Your task to perform on an android device: turn off smart reply in the gmail app Image 0: 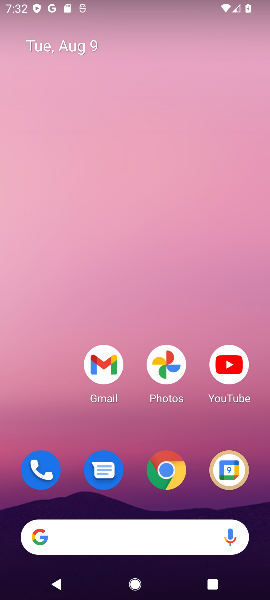
Step 0: click (101, 359)
Your task to perform on an android device: turn off smart reply in the gmail app Image 1: 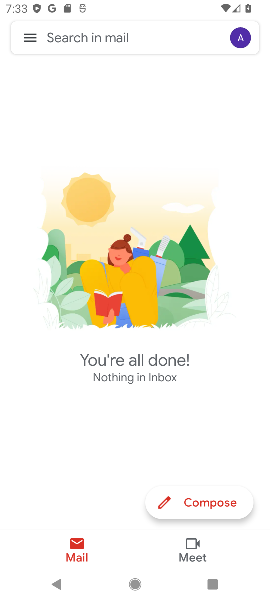
Step 1: click (26, 39)
Your task to perform on an android device: turn off smart reply in the gmail app Image 2: 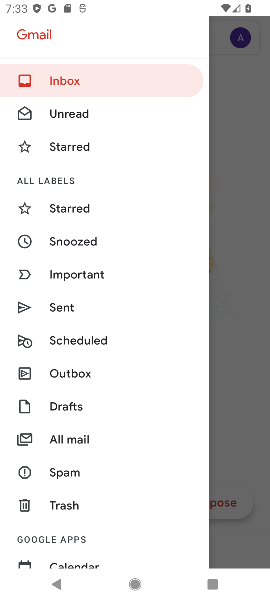
Step 2: drag from (101, 525) to (115, 76)
Your task to perform on an android device: turn off smart reply in the gmail app Image 3: 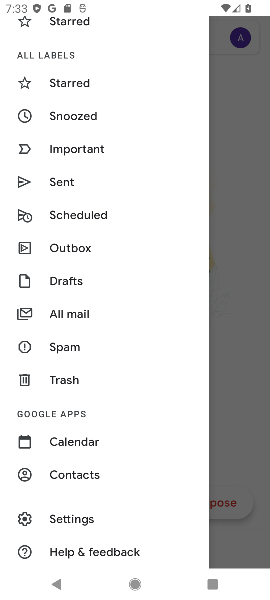
Step 3: click (107, 526)
Your task to perform on an android device: turn off smart reply in the gmail app Image 4: 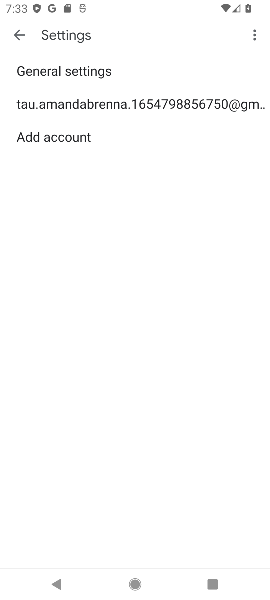
Step 4: click (142, 109)
Your task to perform on an android device: turn off smart reply in the gmail app Image 5: 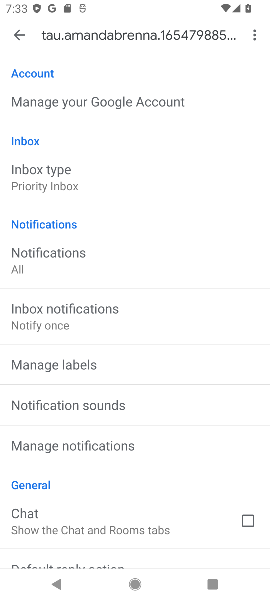
Step 5: click (110, 44)
Your task to perform on an android device: turn off smart reply in the gmail app Image 6: 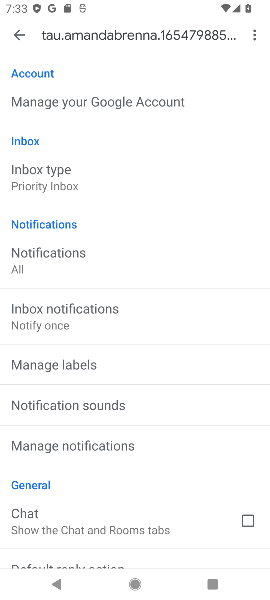
Step 6: drag from (153, 541) to (164, 135)
Your task to perform on an android device: turn off smart reply in the gmail app Image 7: 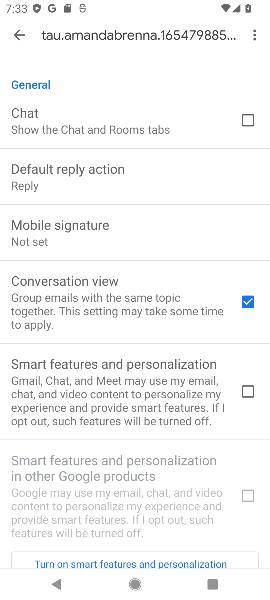
Step 7: drag from (118, 435) to (123, 63)
Your task to perform on an android device: turn off smart reply in the gmail app Image 8: 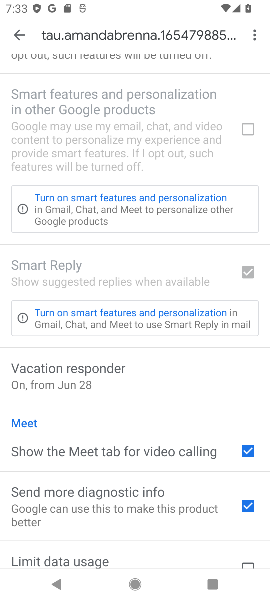
Step 8: drag from (137, 495) to (150, 51)
Your task to perform on an android device: turn off smart reply in the gmail app Image 9: 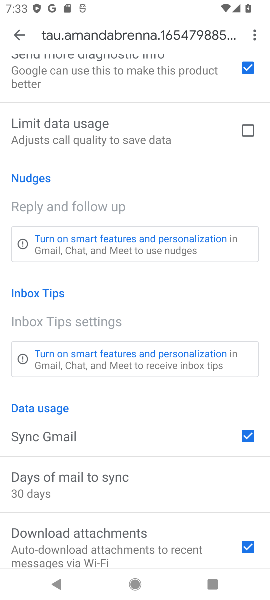
Step 9: drag from (145, 511) to (152, 22)
Your task to perform on an android device: turn off smart reply in the gmail app Image 10: 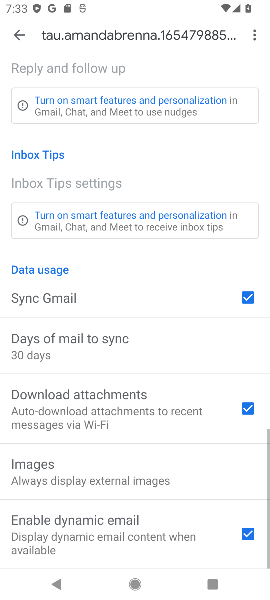
Step 10: drag from (121, 492) to (253, 16)
Your task to perform on an android device: turn off smart reply in the gmail app Image 11: 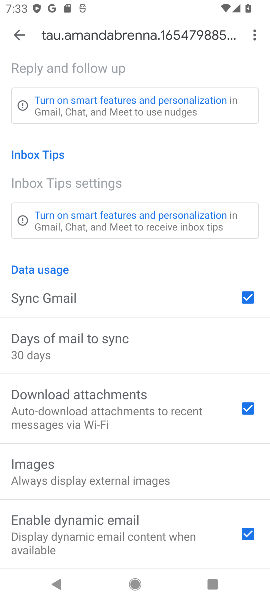
Step 11: drag from (158, 141) to (90, 524)
Your task to perform on an android device: turn off smart reply in the gmail app Image 12: 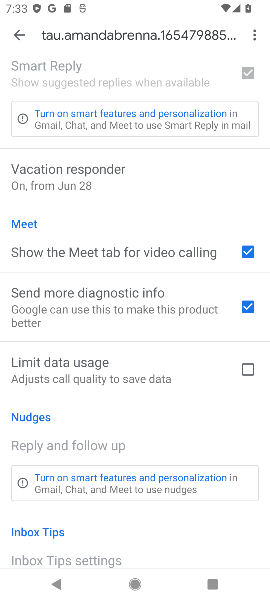
Step 12: drag from (185, 176) to (171, 531)
Your task to perform on an android device: turn off smart reply in the gmail app Image 13: 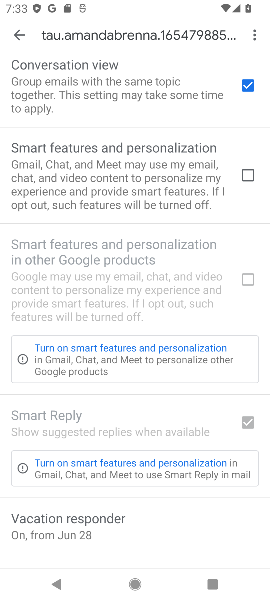
Step 13: click (252, 423)
Your task to perform on an android device: turn off smart reply in the gmail app Image 14: 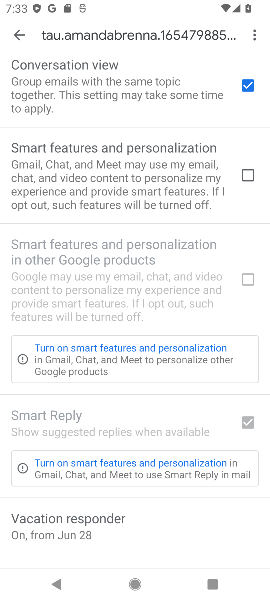
Step 14: task complete